Your task to perform on an android device: show emergency info Image 0: 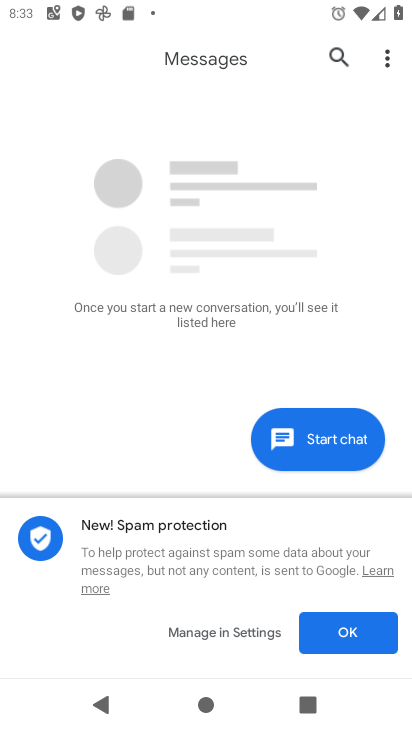
Step 0: press home button
Your task to perform on an android device: show emergency info Image 1: 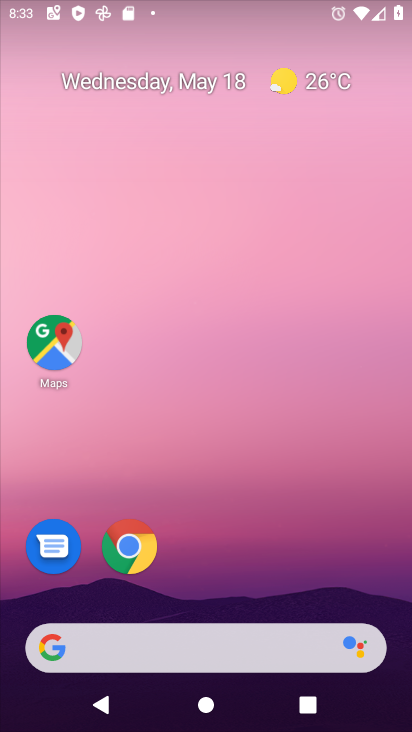
Step 1: drag from (401, 622) to (321, 138)
Your task to perform on an android device: show emergency info Image 2: 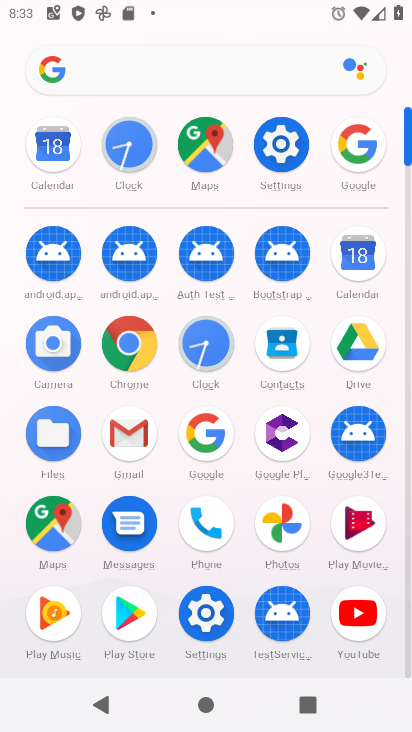
Step 2: click (289, 167)
Your task to perform on an android device: show emergency info Image 3: 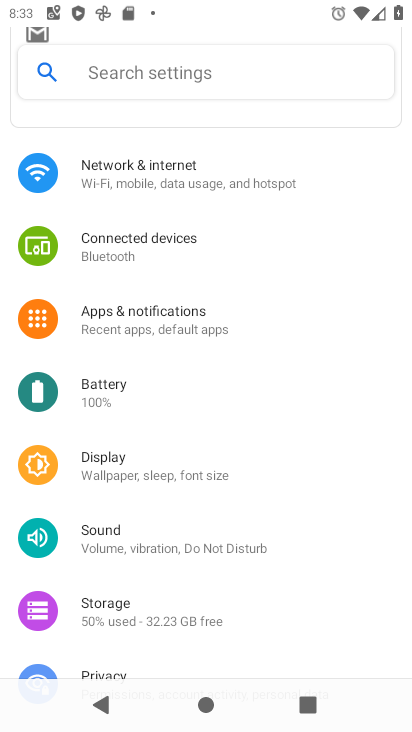
Step 3: click (122, 610)
Your task to perform on an android device: show emergency info Image 4: 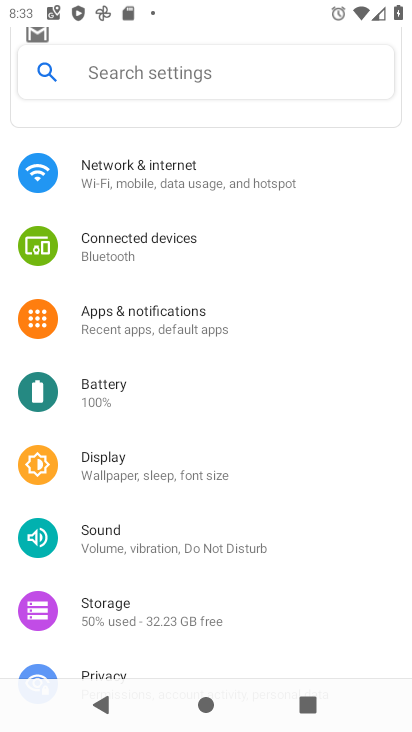
Step 4: drag from (130, 579) to (199, 123)
Your task to perform on an android device: show emergency info Image 5: 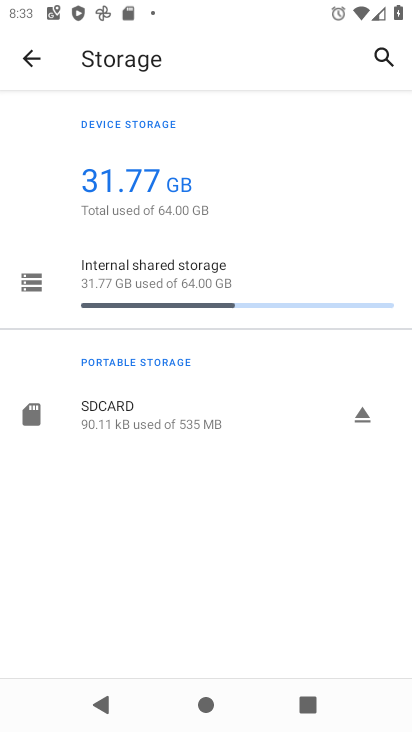
Step 5: press back button
Your task to perform on an android device: show emergency info Image 6: 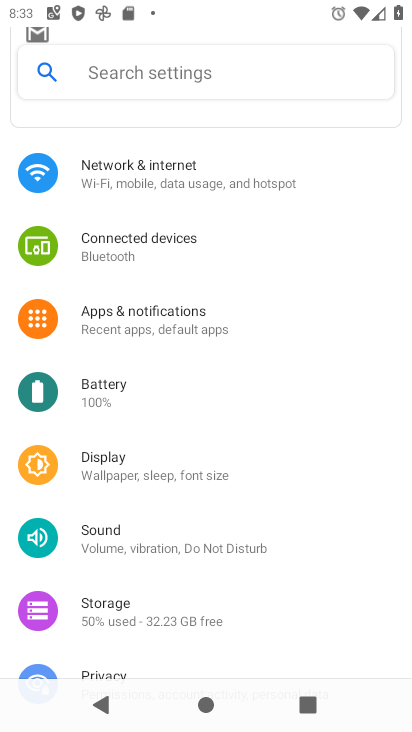
Step 6: drag from (159, 614) to (185, 172)
Your task to perform on an android device: show emergency info Image 7: 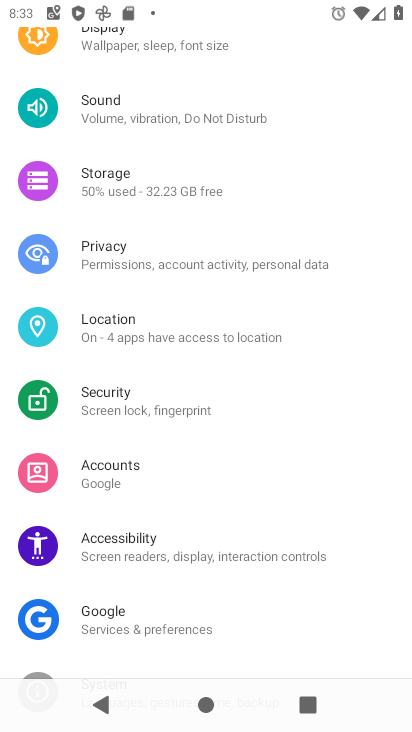
Step 7: drag from (147, 561) to (188, 174)
Your task to perform on an android device: show emergency info Image 8: 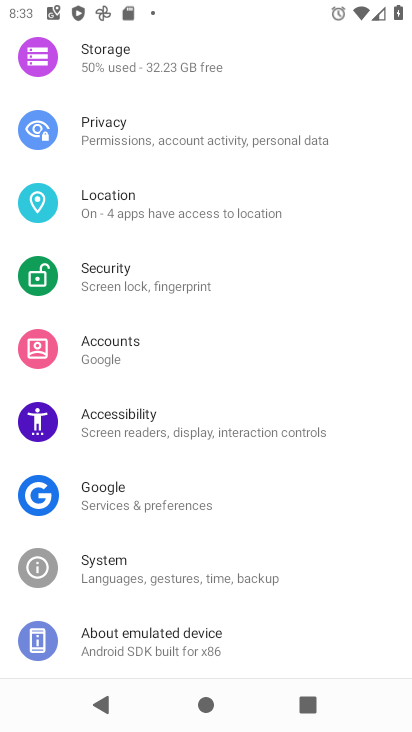
Step 8: click (140, 642)
Your task to perform on an android device: show emergency info Image 9: 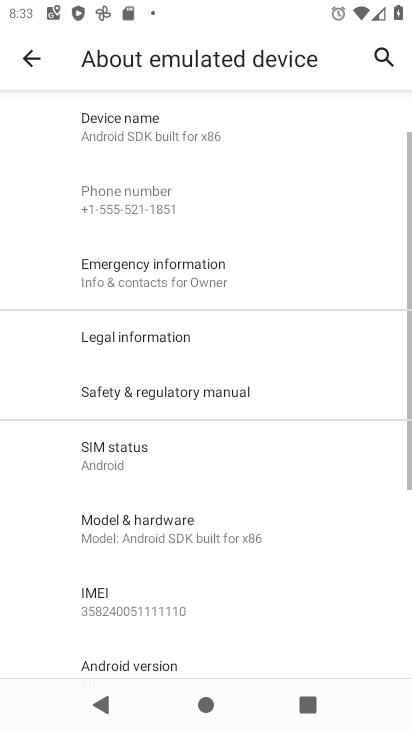
Step 9: click (226, 281)
Your task to perform on an android device: show emergency info Image 10: 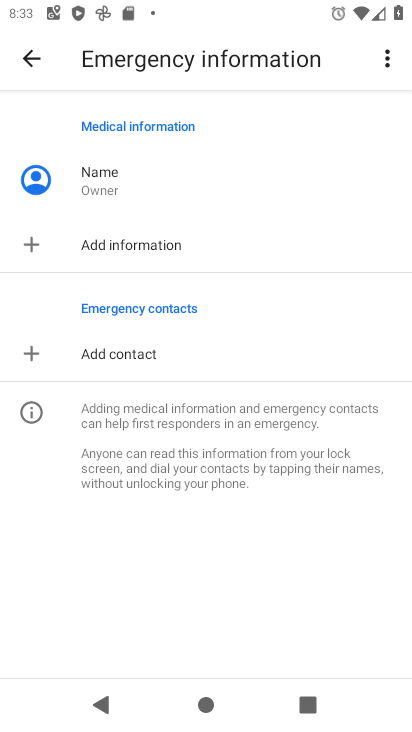
Step 10: task complete